Your task to perform on an android device: see tabs open on other devices in the chrome app Image 0: 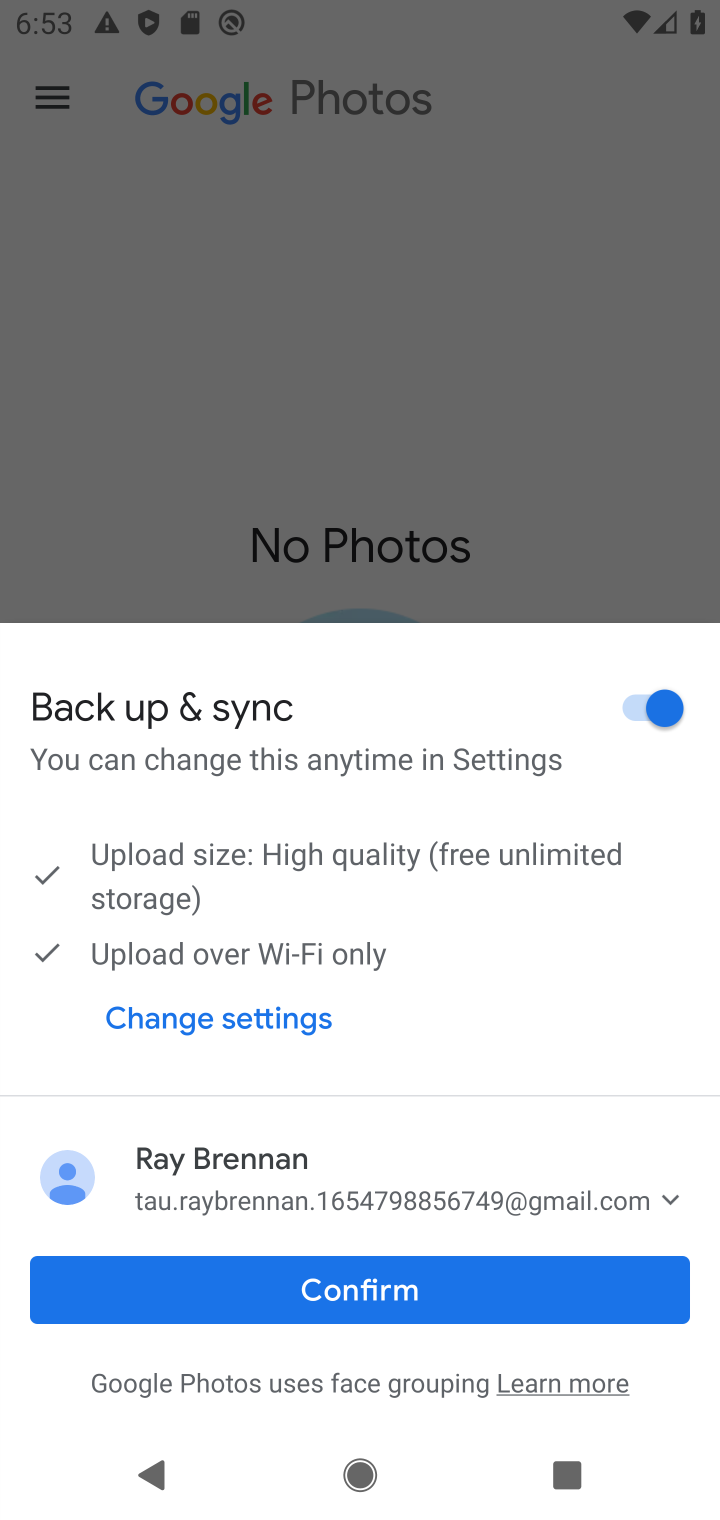
Step 0: press home button
Your task to perform on an android device: see tabs open on other devices in the chrome app Image 1: 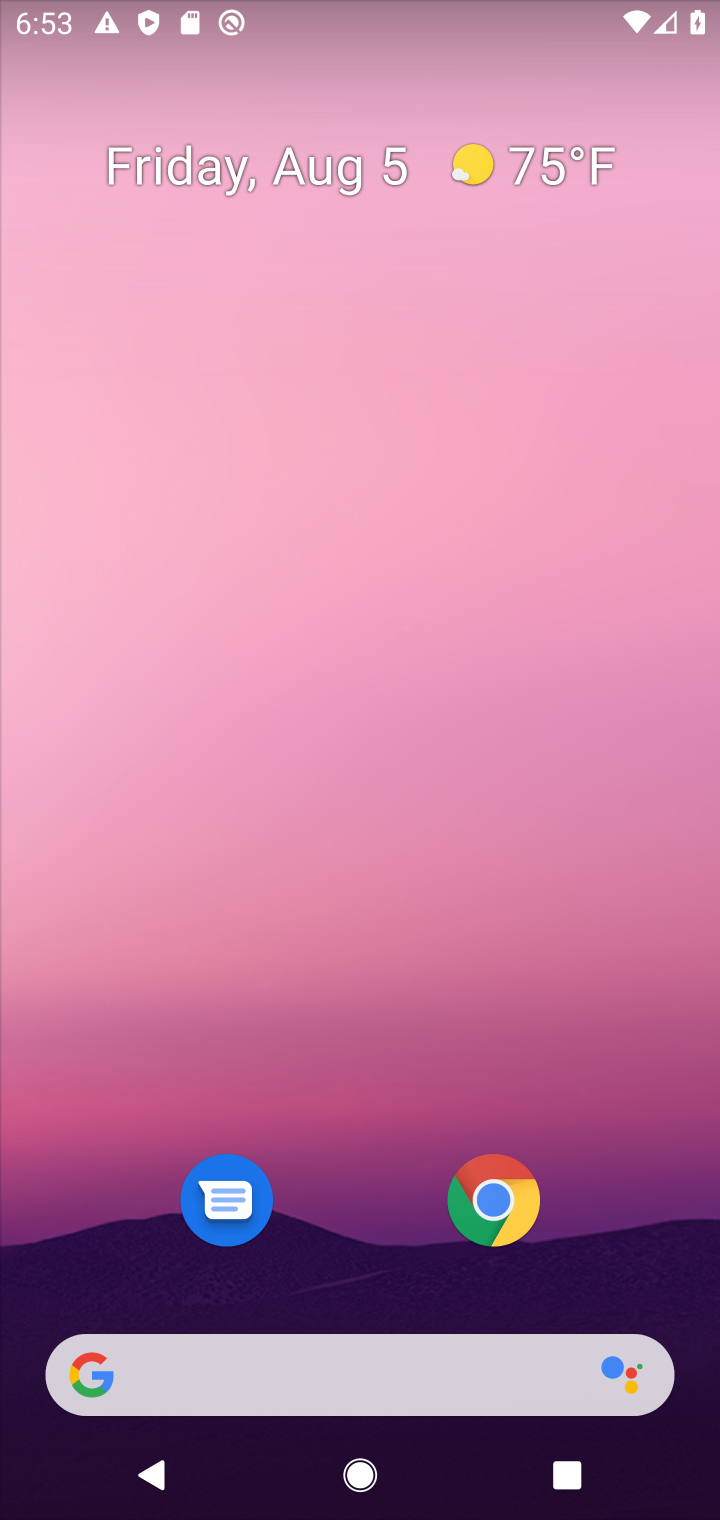
Step 1: click (469, 1186)
Your task to perform on an android device: see tabs open on other devices in the chrome app Image 2: 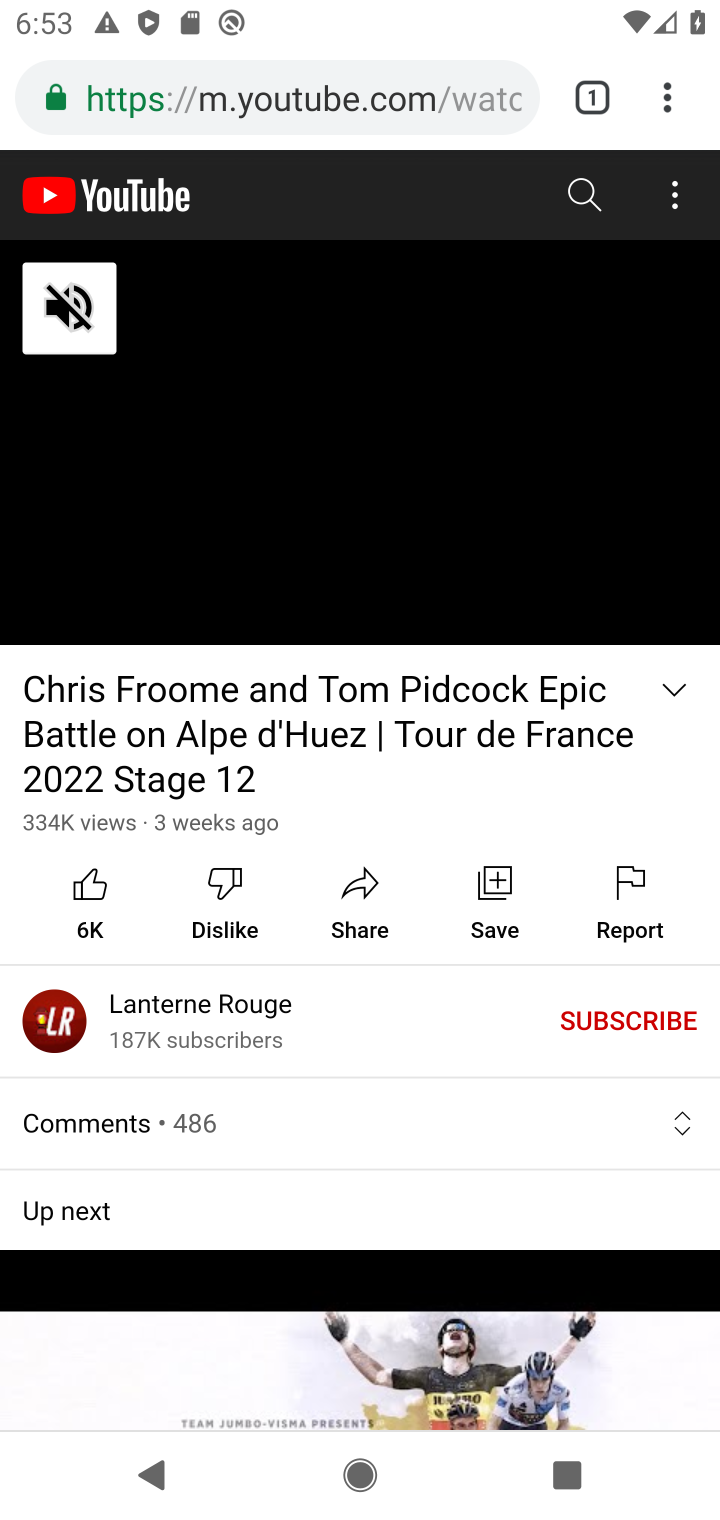
Step 2: click (657, 92)
Your task to perform on an android device: see tabs open on other devices in the chrome app Image 3: 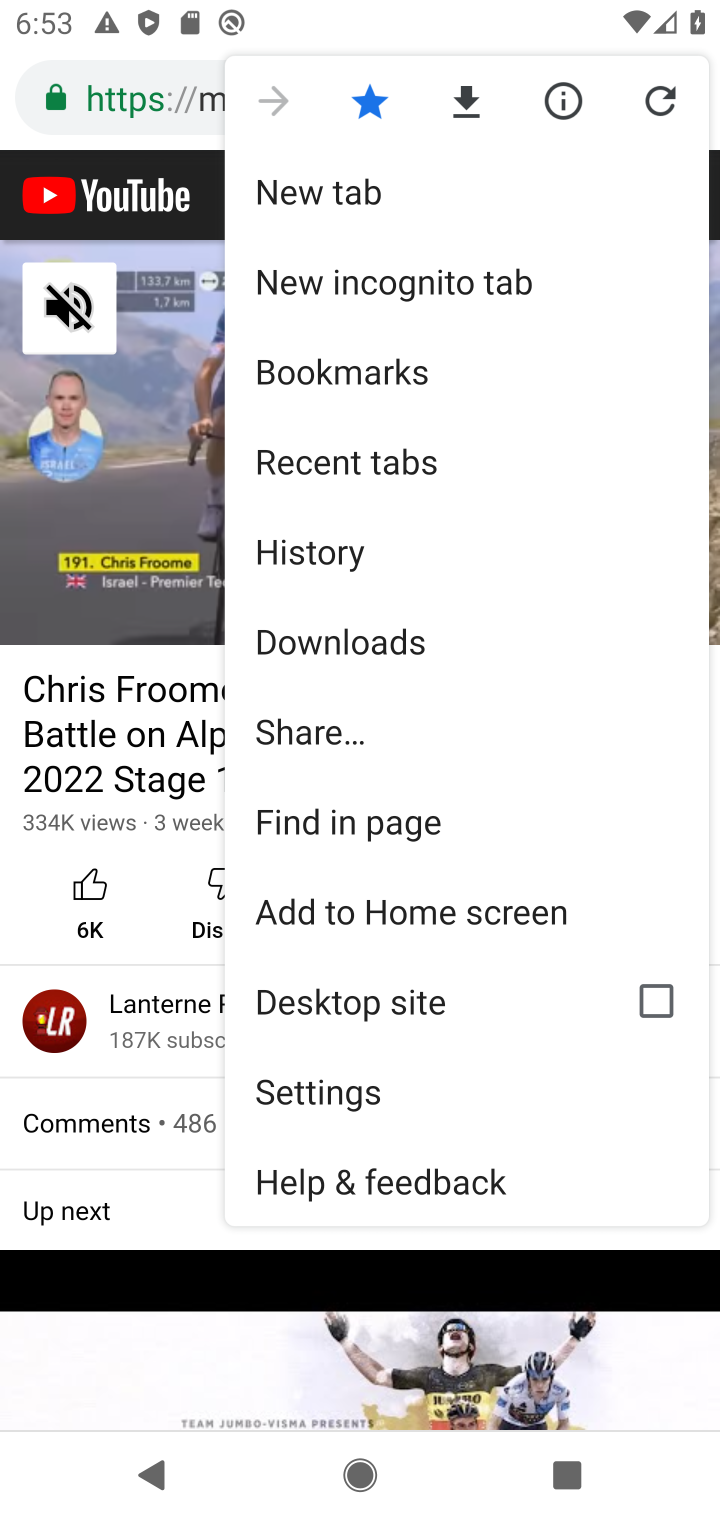
Step 3: click (385, 459)
Your task to perform on an android device: see tabs open on other devices in the chrome app Image 4: 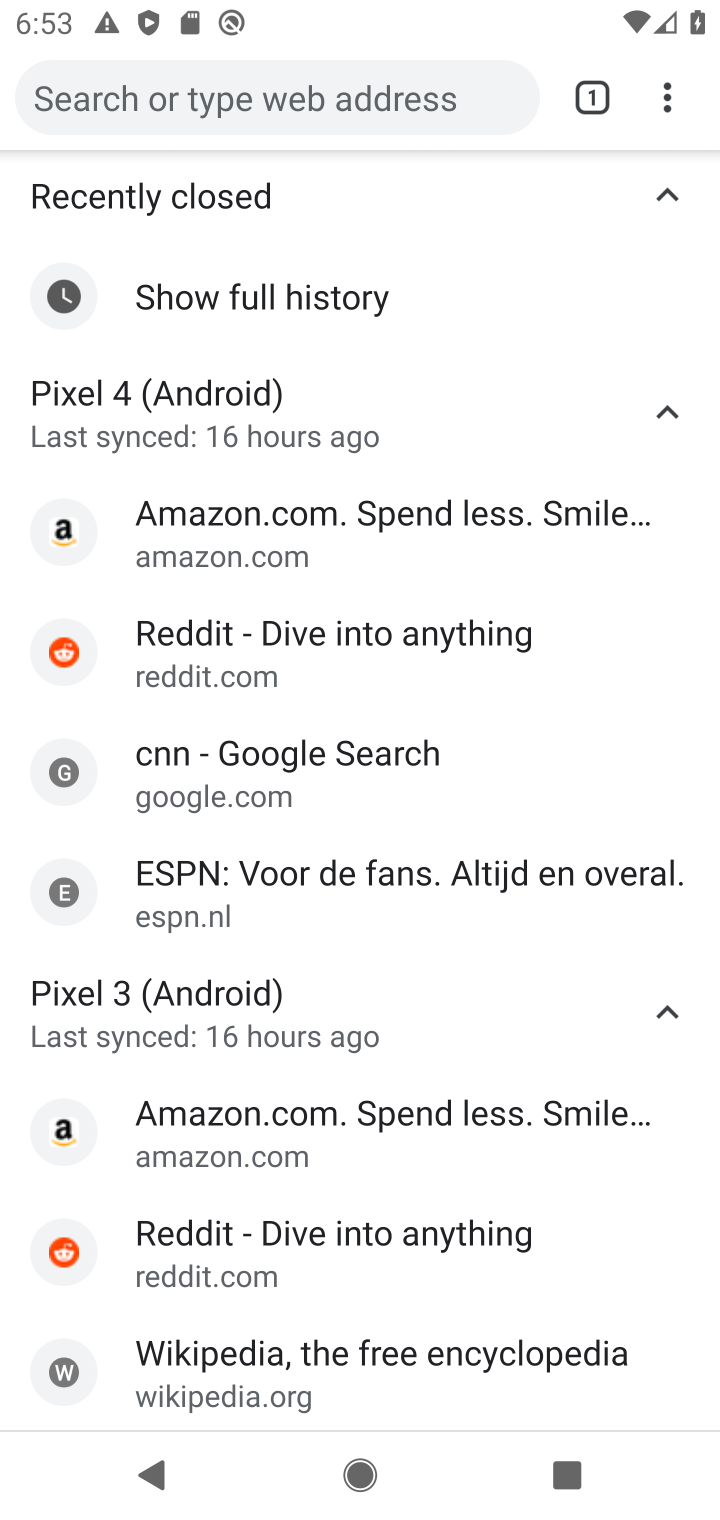
Step 4: task complete